Your task to perform on an android device: Go to accessibility settings Image 0: 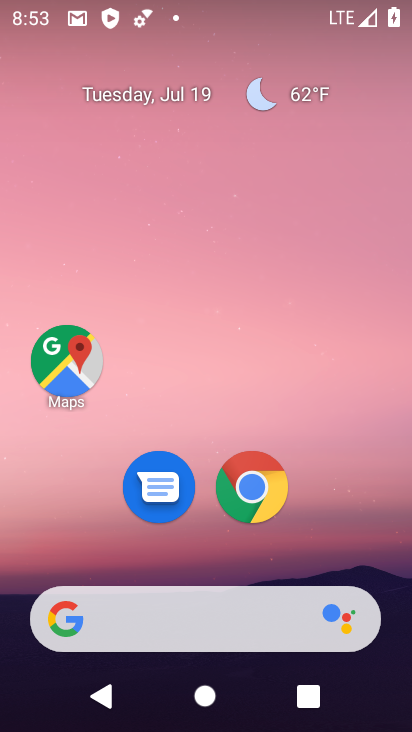
Step 0: drag from (188, 518) to (183, 0)
Your task to perform on an android device: Go to accessibility settings Image 1: 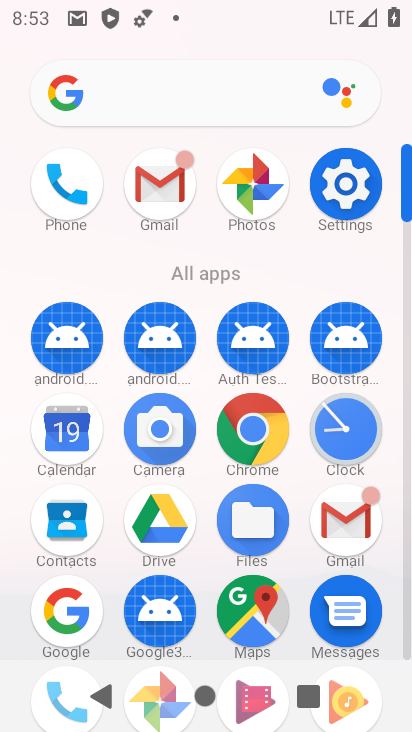
Step 1: click (342, 192)
Your task to perform on an android device: Go to accessibility settings Image 2: 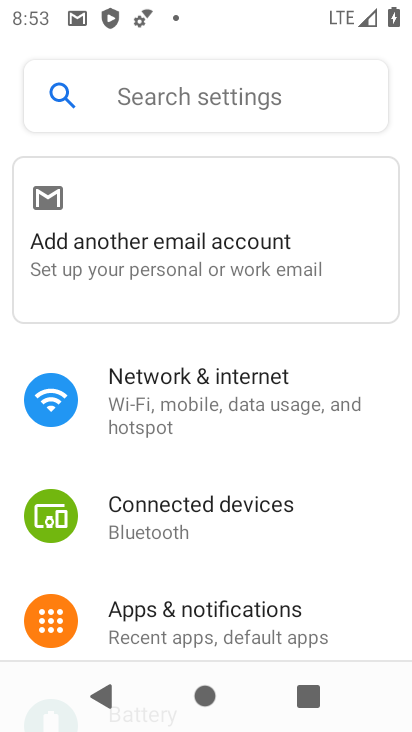
Step 2: drag from (174, 592) to (293, 80)
Your task to perform on an android device: Go to accessibility settings Image 3: 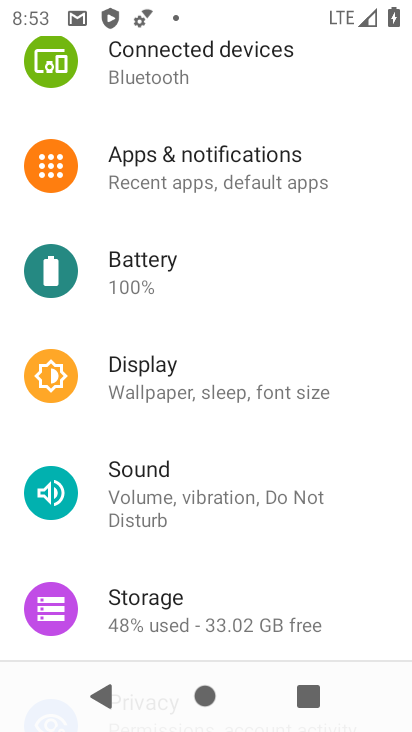
Step 3: drag from (171, 563) to (229, 45)
Your task to perform on an android device: Go to accessibility settings Image 4: 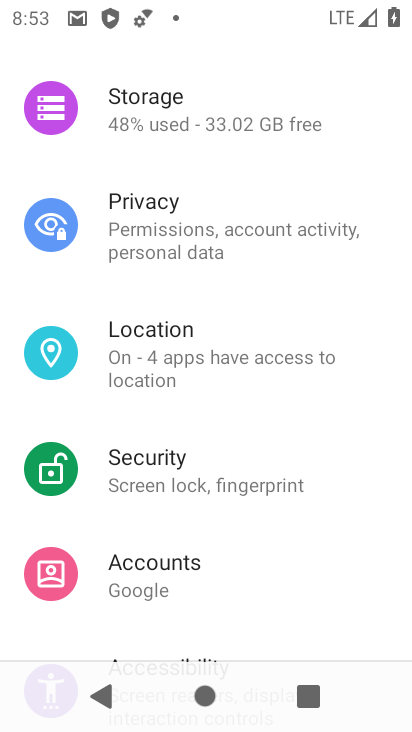
Step 4: drag from (179, 580) to (253, 92)
Your task to perform on an android device: Go to accessibility settings Image 5: 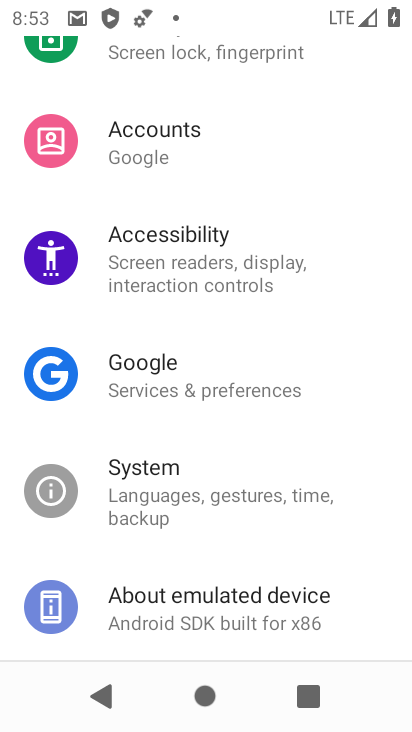
Step 5: click (214, 249)
Your task to perform on an android device: Go to accessibility settings Image 6: 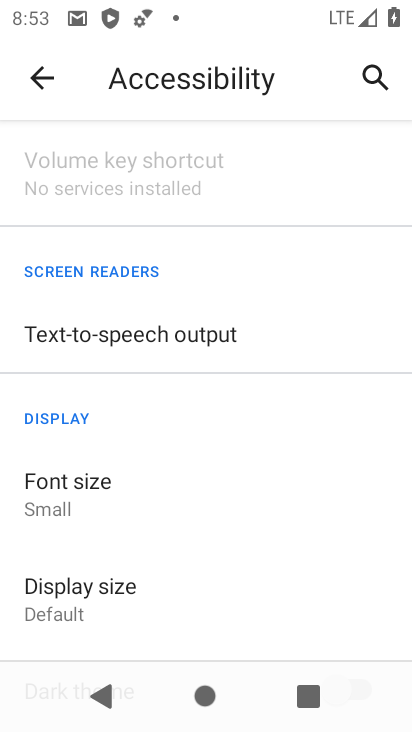
Step 6: task complete